Your task to perform on an android device: choose inbox layout in the gmail app Image 0: 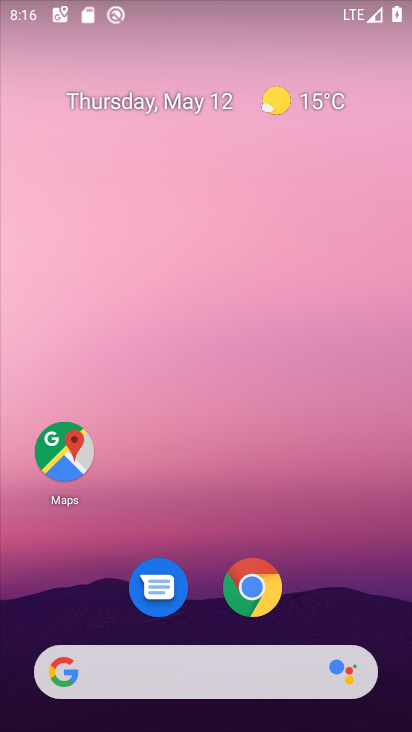
Step 0: drag from (369, 586) to (223, 54)
Your task to perform on an android device: choose inbox layout in the gmail app Image 1: 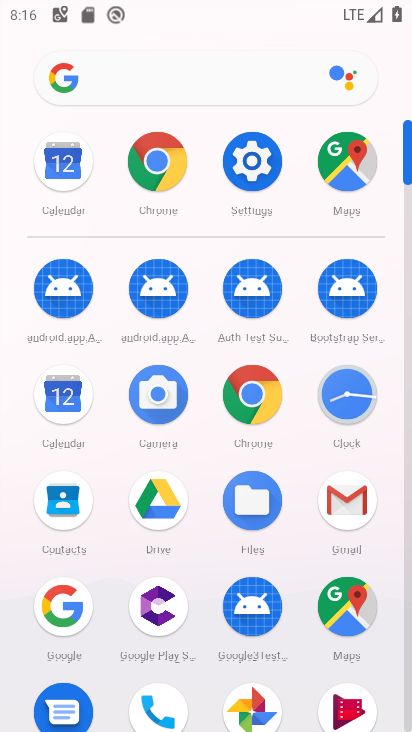
Step 1: click (343, 483)
Your task to perform on an android device: choose inbox layout in the gmail app Image 2: 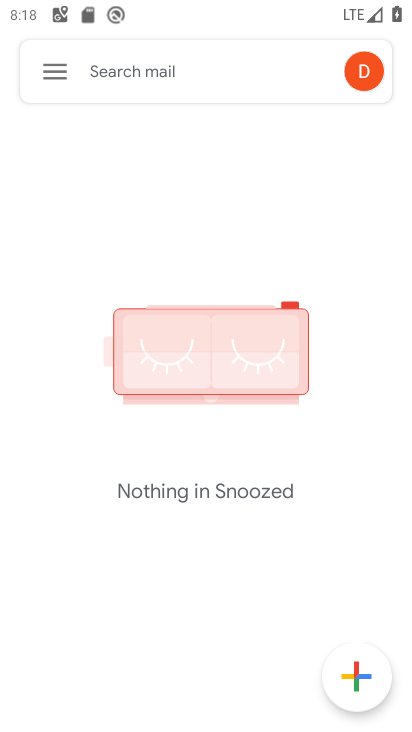
Step 2: task complete